Your task to perform on an android device: Open Amazon Image 0: 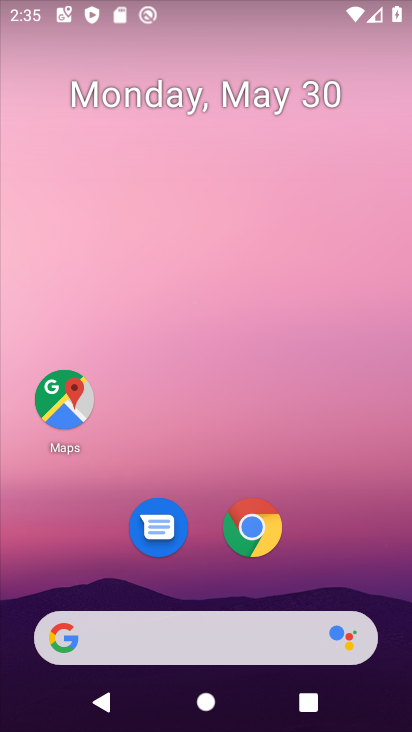
Step 0: click (251, 521)
Your task to perform on an android device: Open Amazon Image 1: 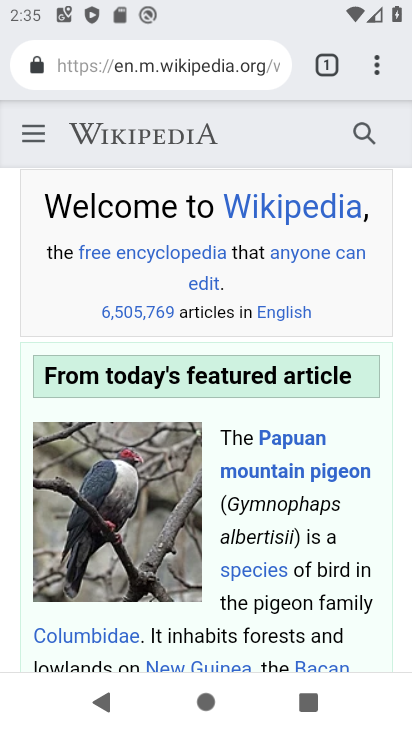
Step 1: drag from (377, 52) to (163, 120)
Your task to perform on an android device: Open Amazon Image 2: 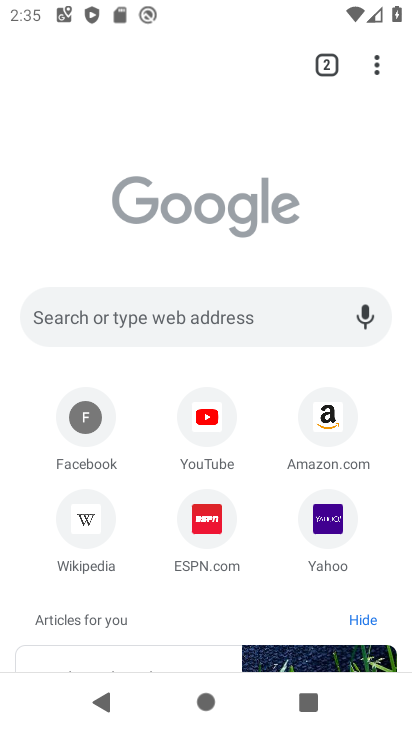
Step 2: click (318, 407)
Your task to perform on an android device: Open Amazon Image 3: 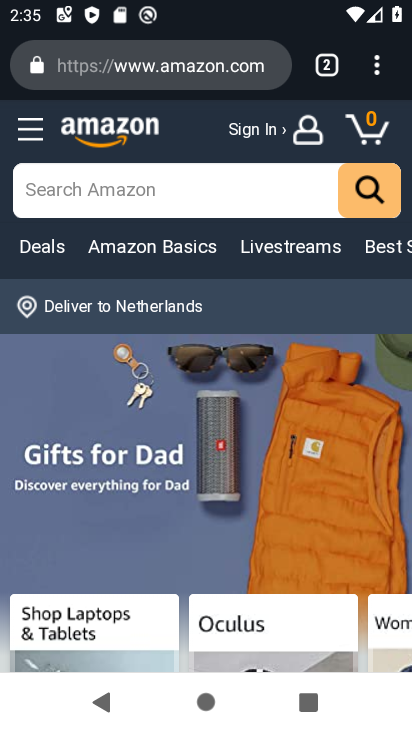
Step 3: task complete